Your task to perform on an android device: Open Android settings Image 0: 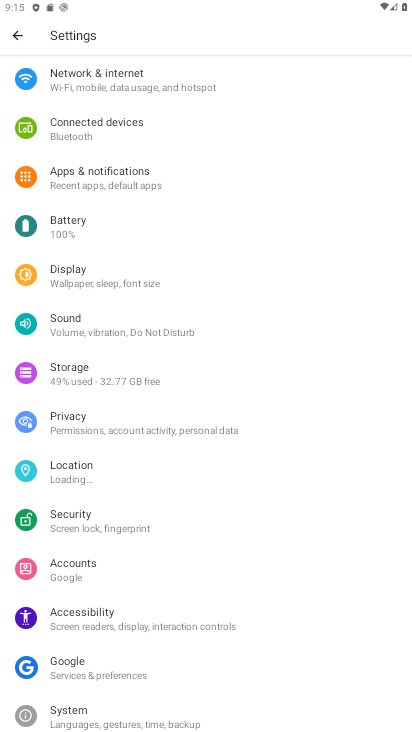
Step 0: click (237, 705)
Your task to perform on an android device: Open Android settings Image 1: 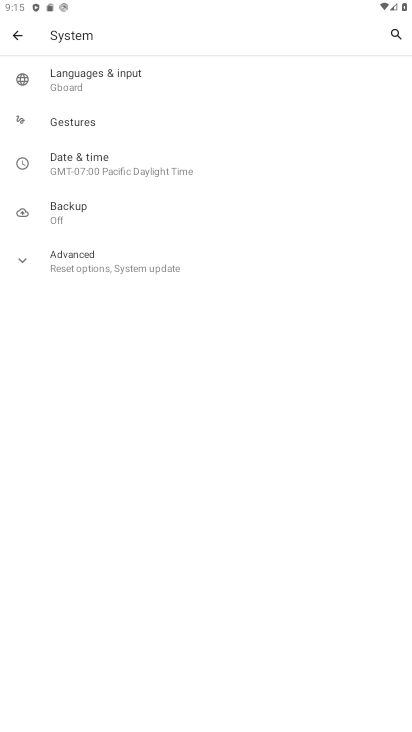
Step 1: task complete